Your task to perform on an android device: Go to battery settings Image 0: 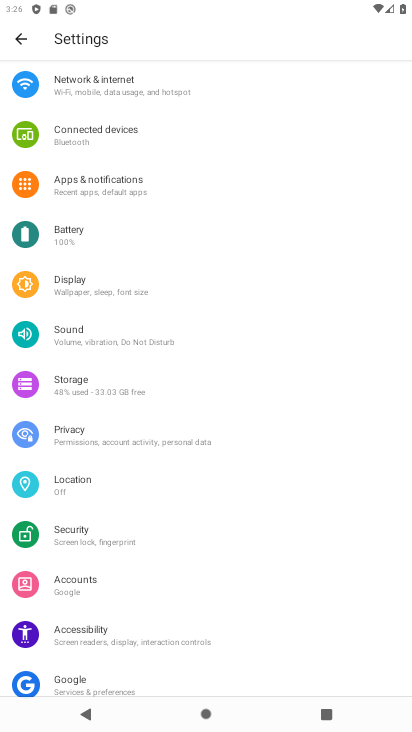
Step 0: click (69, 243)
Your task to perform on an android device: Go to battery settings Image 1: 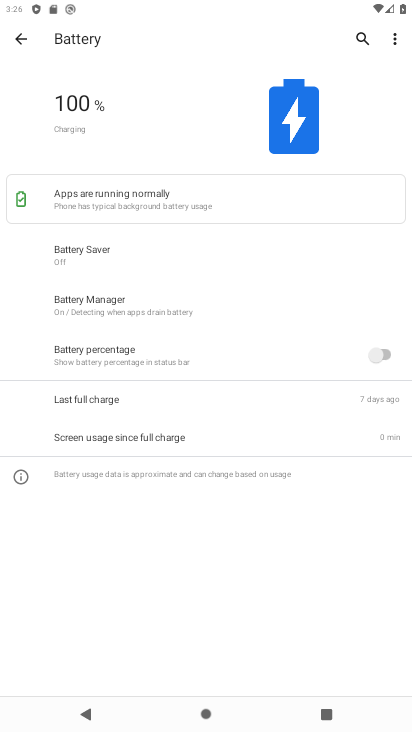
Step 1: task complete